Your task to perform on an android device: Open network settings Image 0: 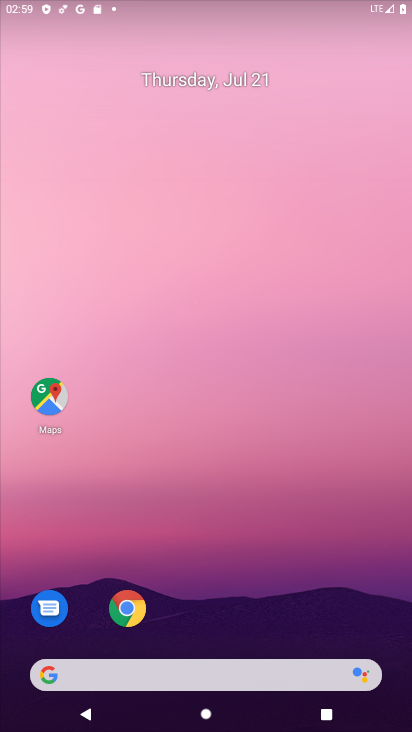
Step 0: drag from (233, 641) to (199, 68)
Your task to perform on an android device: Open network settings Image 1: 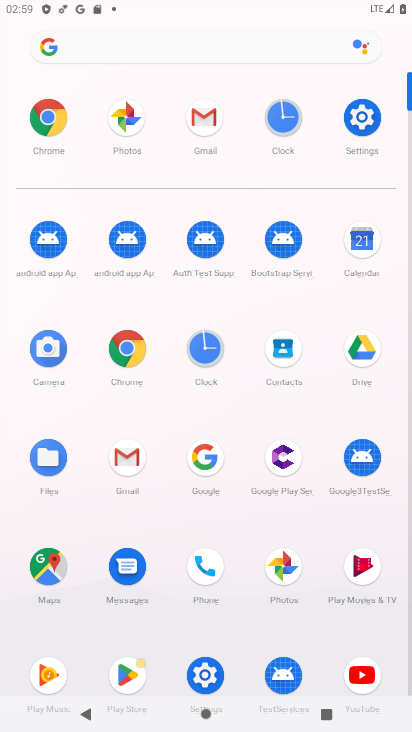
Step 1: click (385, 117)
Your task to perform on an android device: Open network settings Image 2: 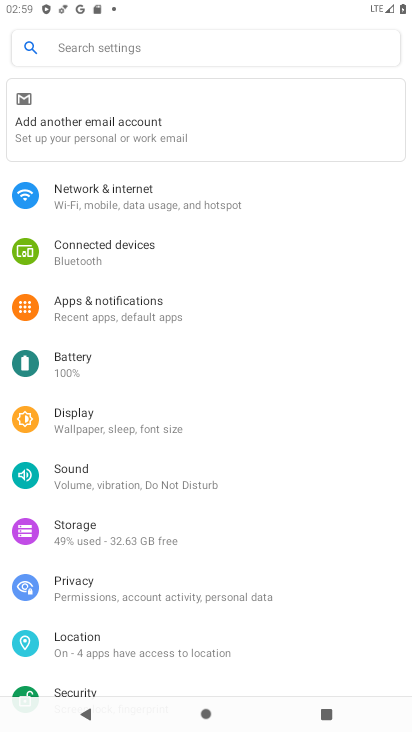
Step 2: drag from (169, 386) to (149, 38)
Your task to perform on an android device: Open network settings Image 3: 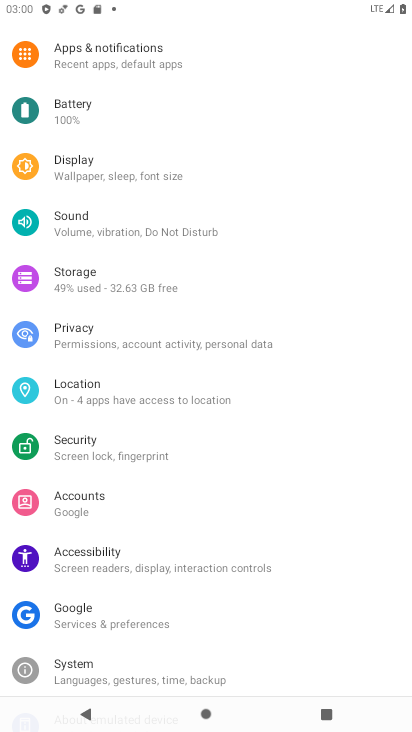
Step 3: drag from (116, 71) to (127, 586)
Your task to perform on an android device: Open network settings Image 4: 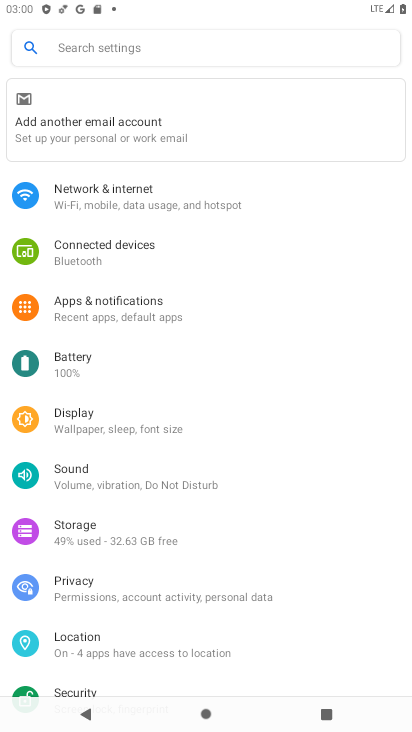
Step 4: click (127, 206)
Your task to perform on an android device: Open network settings Image 5: 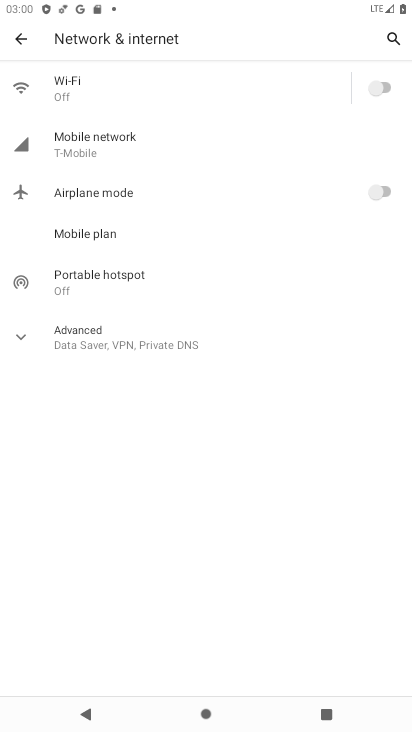
Step 5: click (141, 138)
Your task to perform on an android device: Open network settings Image 6: 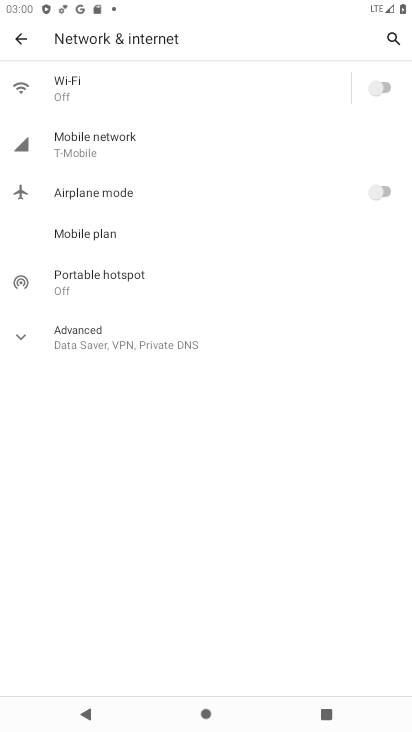
Step 6: task complete